Your task to perform on an android device: Is it going to rain tomorrow? Image 0: 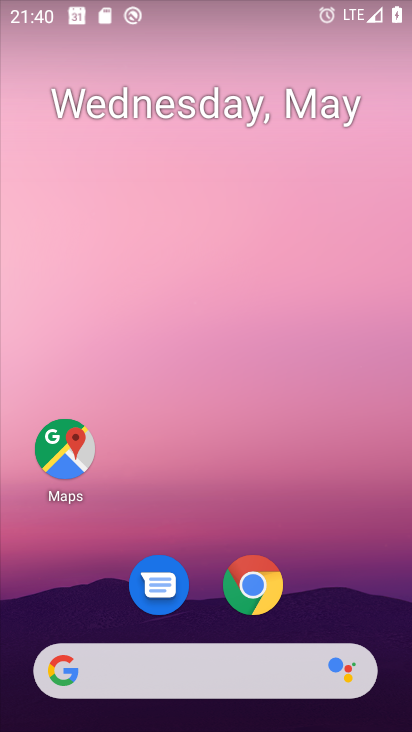
Step 0: click (265, 667)
Your task to perform on an android device: Is it going to rain tomorrow? Image 1: 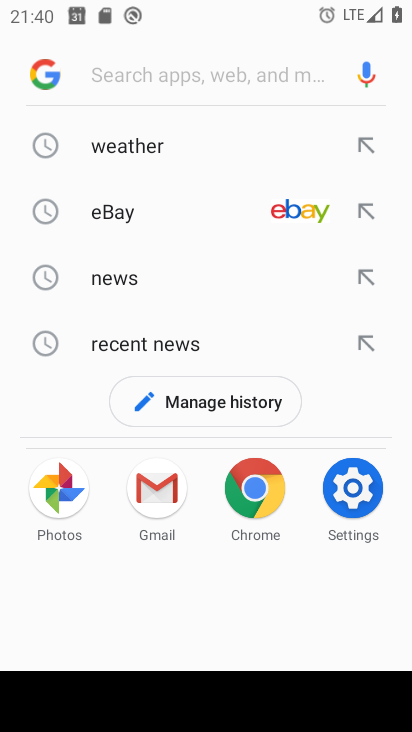
Step 1: click (120, 130)
Your task to perform on an android device: Is it going to rain tomorrow? Image 2: 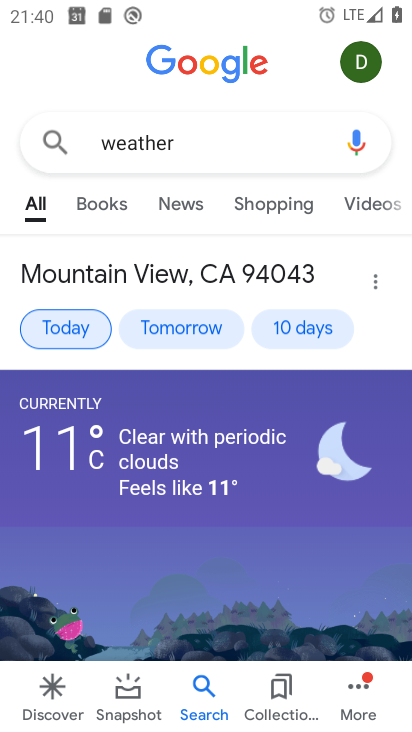
Step 2: click (78, 322)
Your task to perform on an android device: Is it going to rain tomorrow? Image 3: 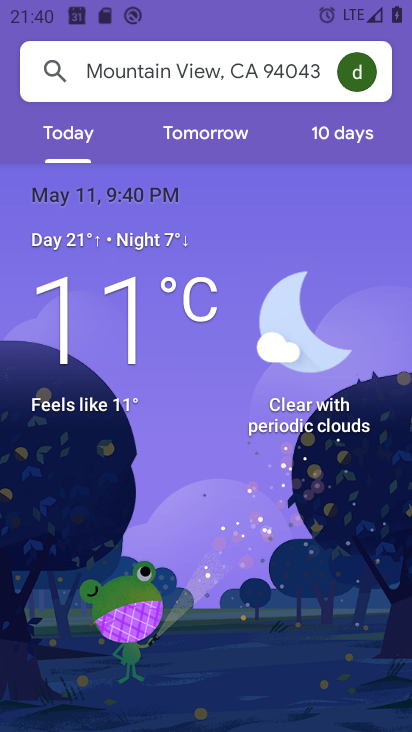
Step 3: click (217, 141)
Your task to perform on an android device: Is it going to rain tomorrow? Image 4: 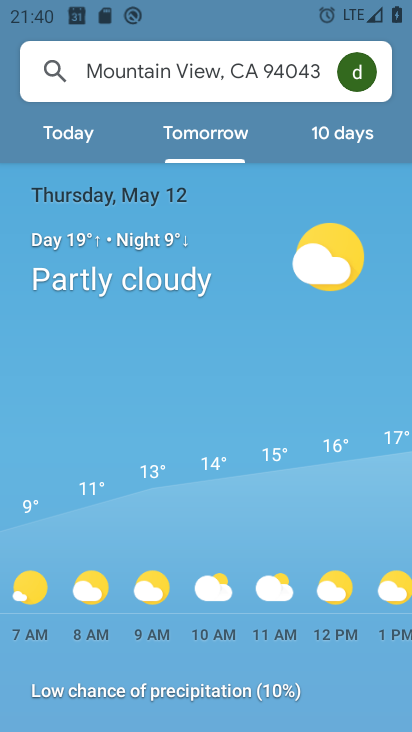
Step 4: task complete